Your task to perform on an android device: change keyboard looks Image 0: 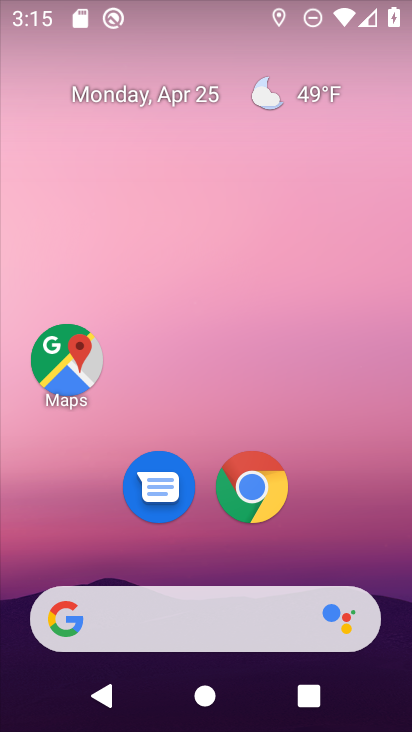
Step 0: drag from (379, 466) to (216, 19)
Your task to perform on an android device: change keyboard looks Image 1: 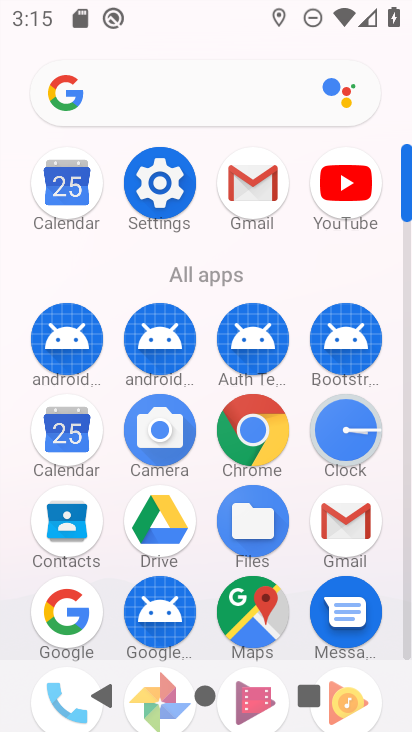
Step 1: click (162, 196)
Your task to perform on an android device: change keyboard looks Image 2: 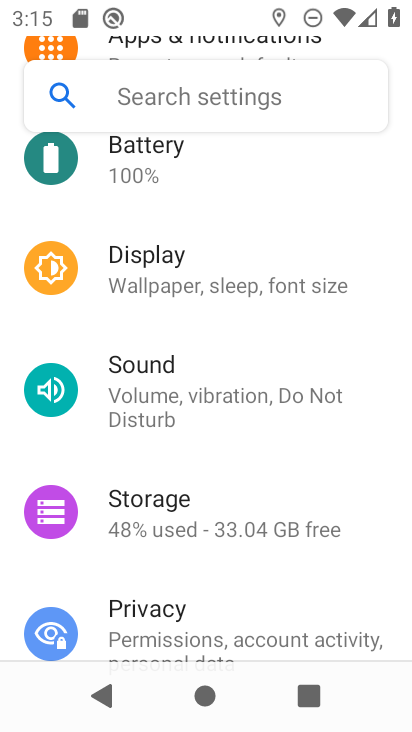
Step 2: drag from (332, 574) to (326, 101)
Your task to perform on an android device: change keyboard looks Image 3: 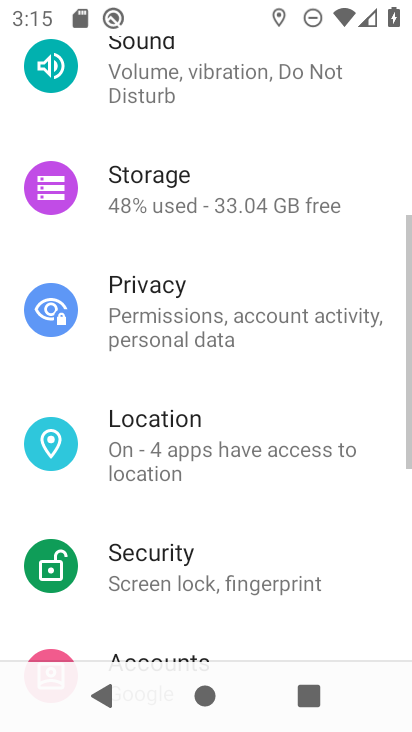
Step 3: drag from (332, 606) to (315, 49)
Your task to perform on an android device: change keyboard looks Image 4: 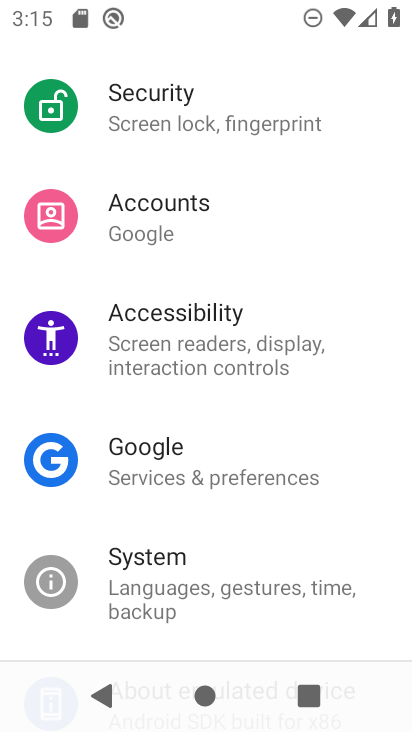
Step 4: click (149, 605)
Your task to perform on an android device: change keyboard looks Image 5: 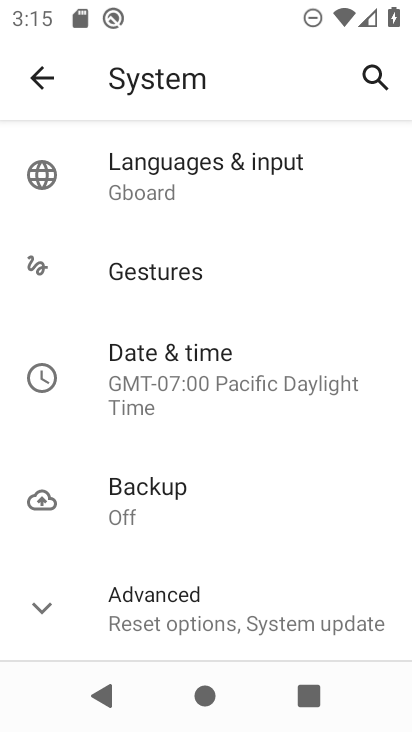
Step 5: click (145, 195)
Your task to perform on an android device: change keyboard looks Image 6: 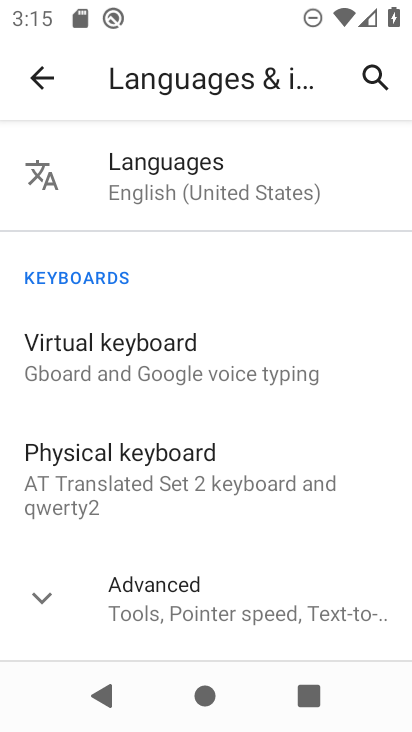
Step 6: click (90, 367)
Your task to perform on an android device: change keyboard looks Image 7: 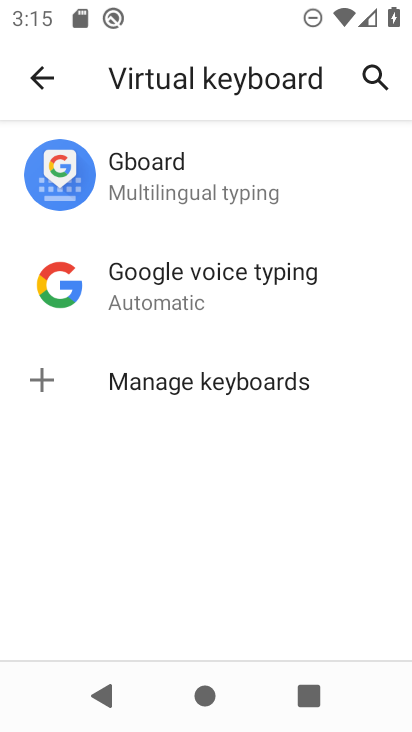
Step 7: click (88, 197)
Your task to perform on an android device: change keyboard looks Image 8: 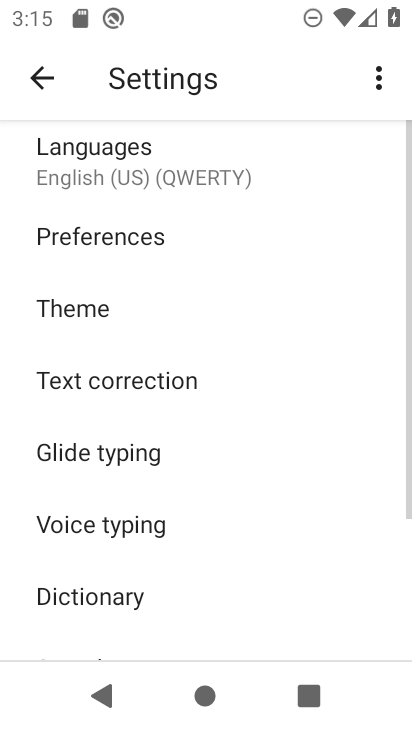
Step 8: click (39, 327)
Your task to perform on an android device: change keyboard looks Image 9: 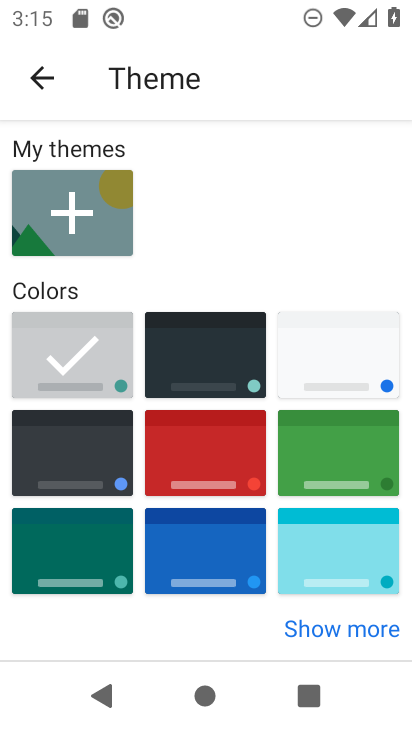
Step 9: click (246, 492)
Your task to perform on an android device: change keyboard looks Image 10: 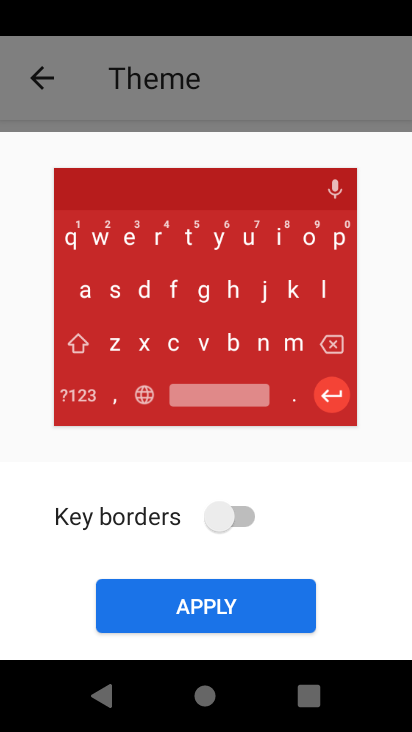
Step 10: click (212, 543)
Your task to perform on an android device: change keyboard looks Image 11: 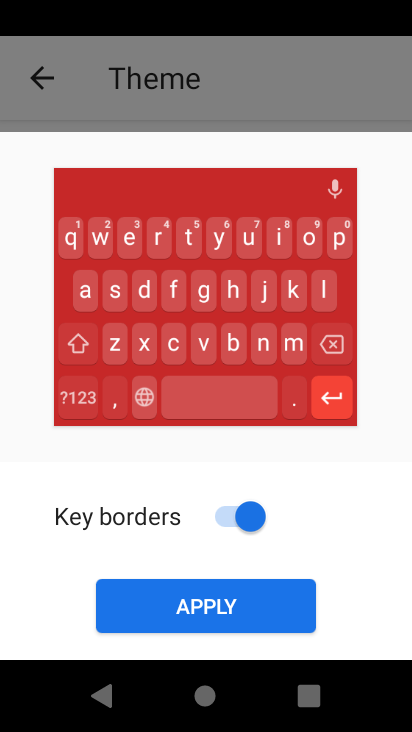
Step 11: click (190, 623)
Your task to perform on an android device: change keyboard looks Image 12: 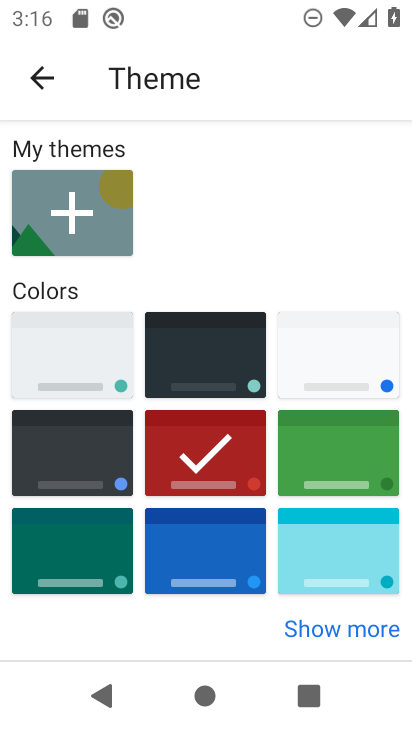
Step 12: task complete